Your task to perform on an android device: Search for vegetarian restaurants on Maps Image 0: 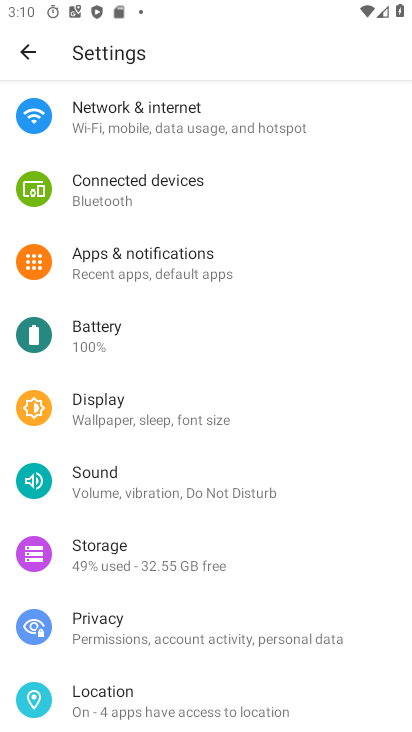
Step 0: press home button
Your task to perform on an android device: Search for vegetarian restaurants on Maps Image 1: 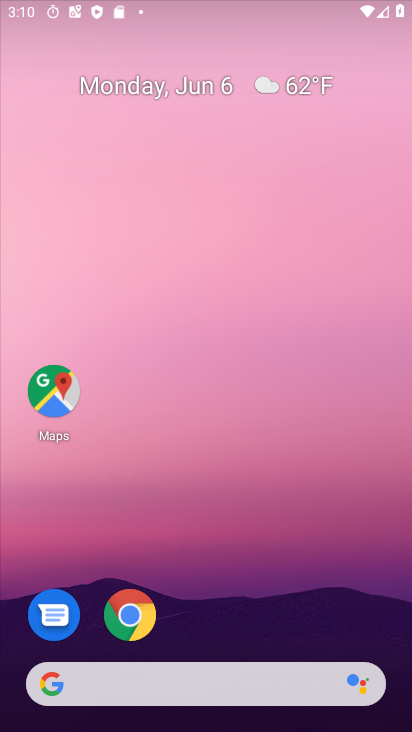
Step 1: drag from (201, 631) to (322, 39)
Your task to perform on an android device: Search for vegetarian restaurants on Maps Image 2: 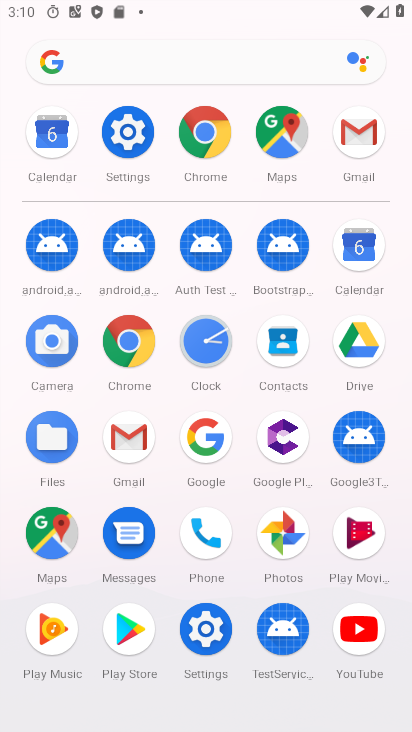
Step 2: click (37, 529)
Your task to perform on an android device: Search for vegetarian restaurants on Maps Image 3: 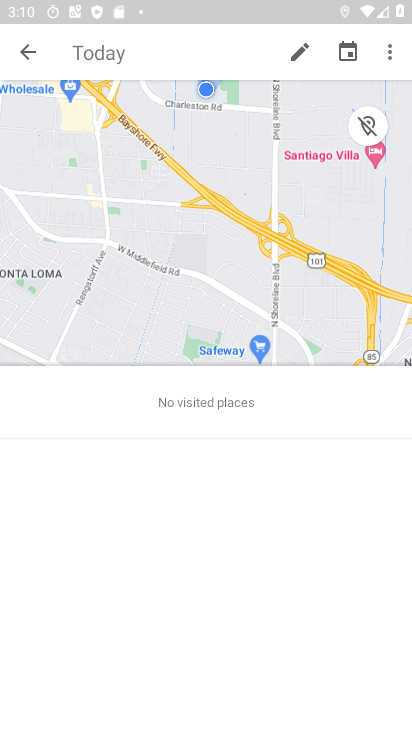
Step 3: press back button
Your task to perform on an android device: Search for vegetarian restaurants on Maps Image 4: 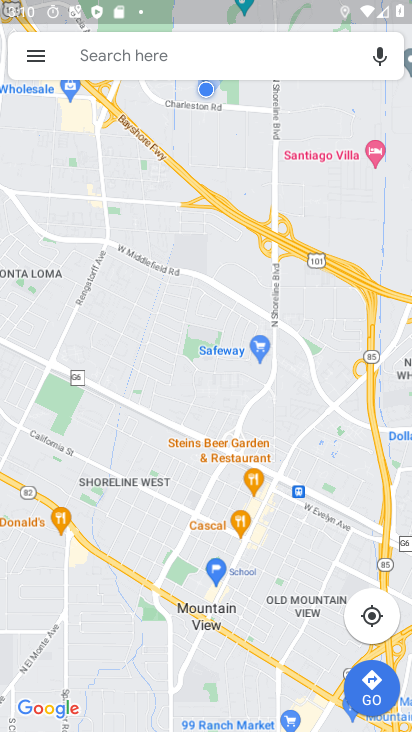
Step 4: click (174, 51)
Your task to perform on an android device: Search for vegetarian restaurants on Maps Image 5: 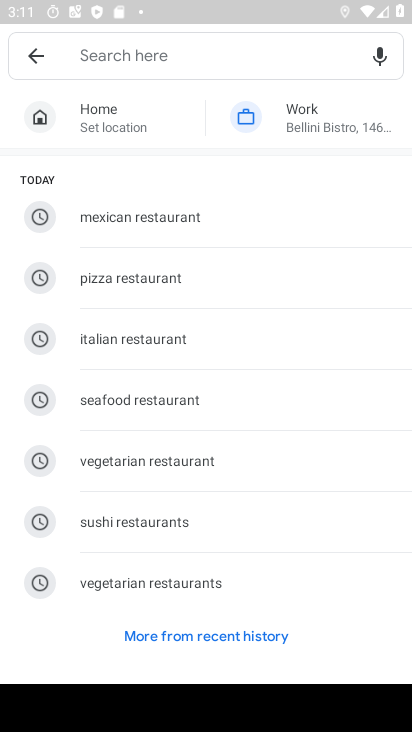
Step 5: click (127, 468)
Your task to perform on an android device: Search for vegetarian restaurants on Maps Image 6: 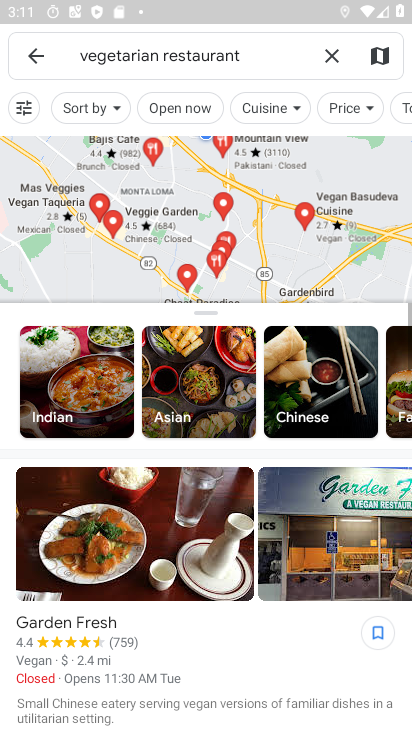
Step 6: task complete